Your task to perform on an android device: turn on wifi Image 0: 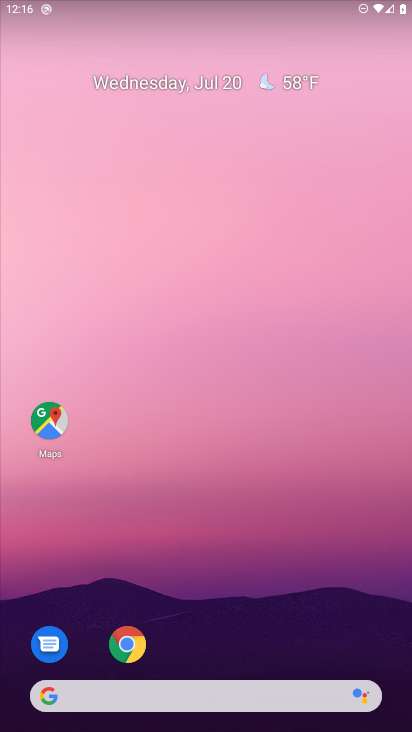
Step 0: drag from (27, 664) to (199, 148)
Your task to perform on an android device: turn on wifi Image 1: 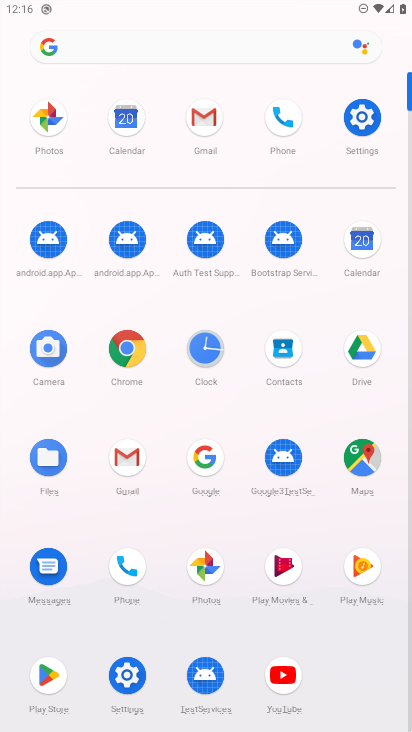
Step 1: click (122, 677)
Your task to perform on an android device: turn on wifi Image 2: 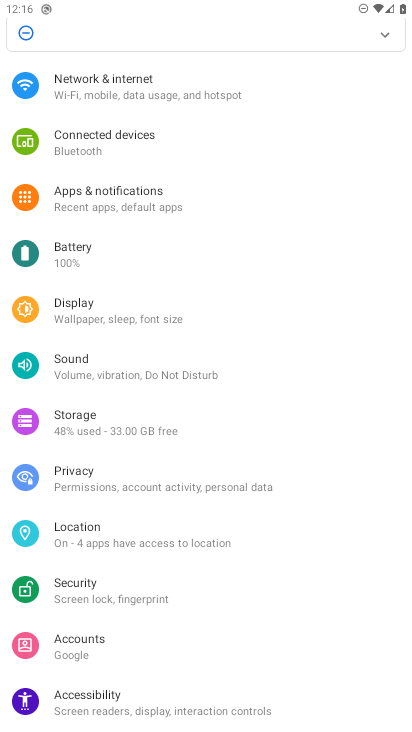
Step 2: click (180, 87)
Your task to perform on an android device: turn on wifi Image 3: 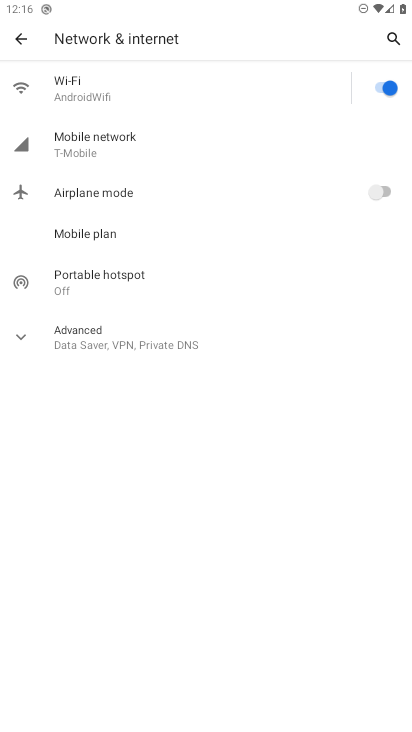
Step 3: task complete